Your task to perform on an android device: open app "Google Home" Image 0: 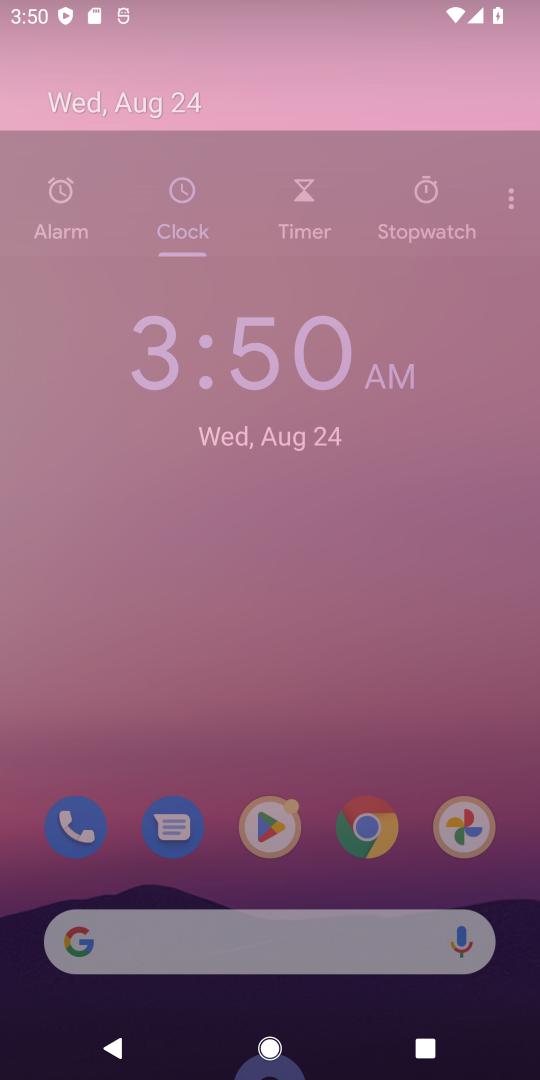
Step 0: press home button
Your task to perform on an android device: open app "Google Home" Image 1: 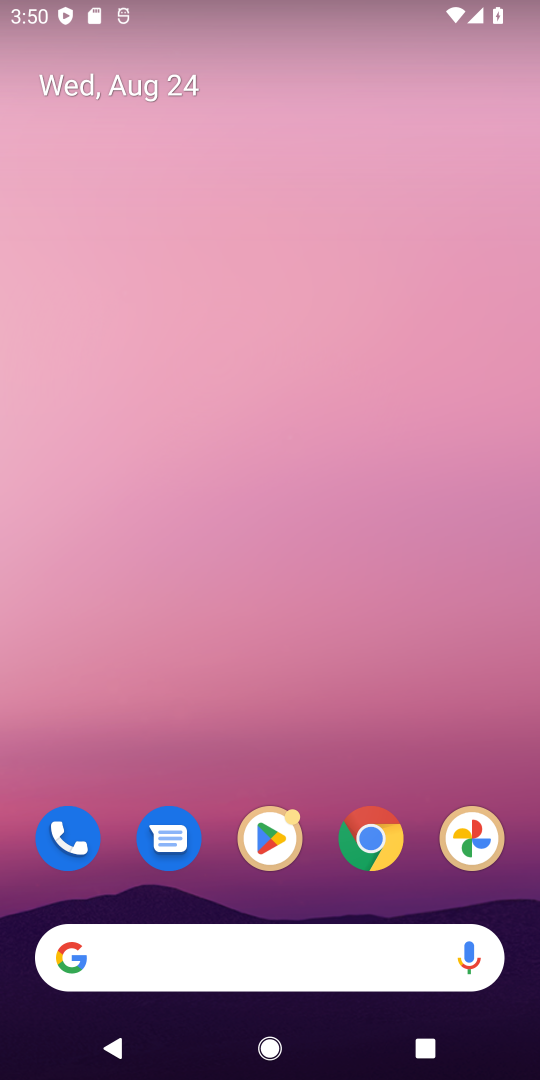
Step 1: click (267, 833)
Your task to perform on an android device: open app "Google Home" Image 2: 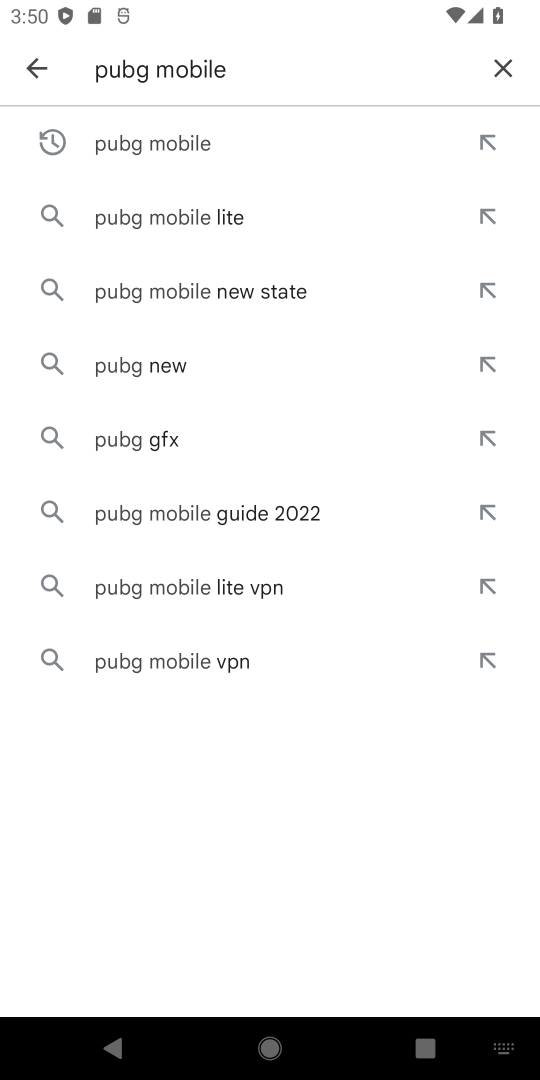
Step 2: click (500, 67)
Your task to perform on an android device: open app "Google Home" Image 3: 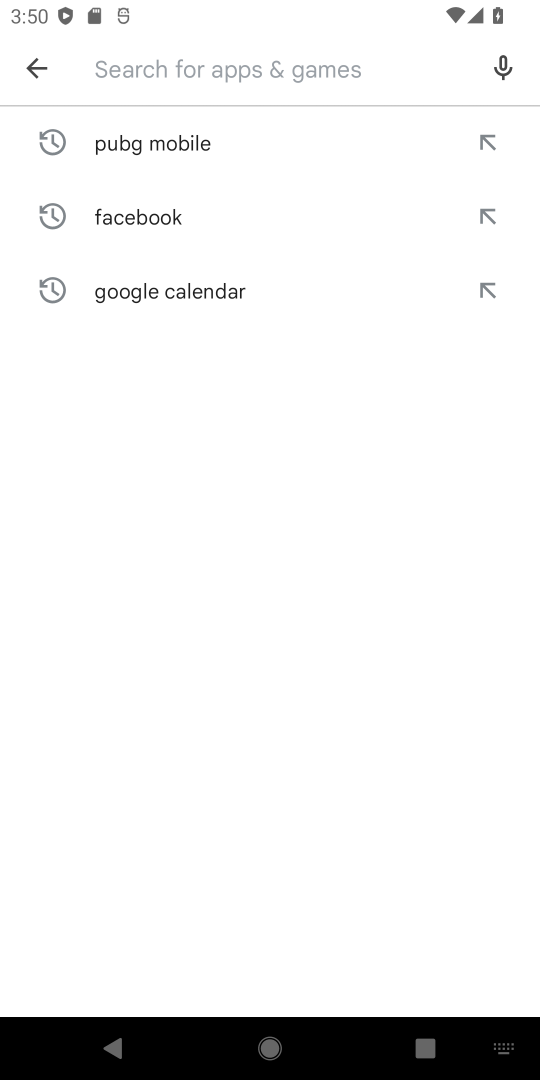
Step 3: type "Google Home"
Your task to perform on an android device: open app "Google Home" Image 4: 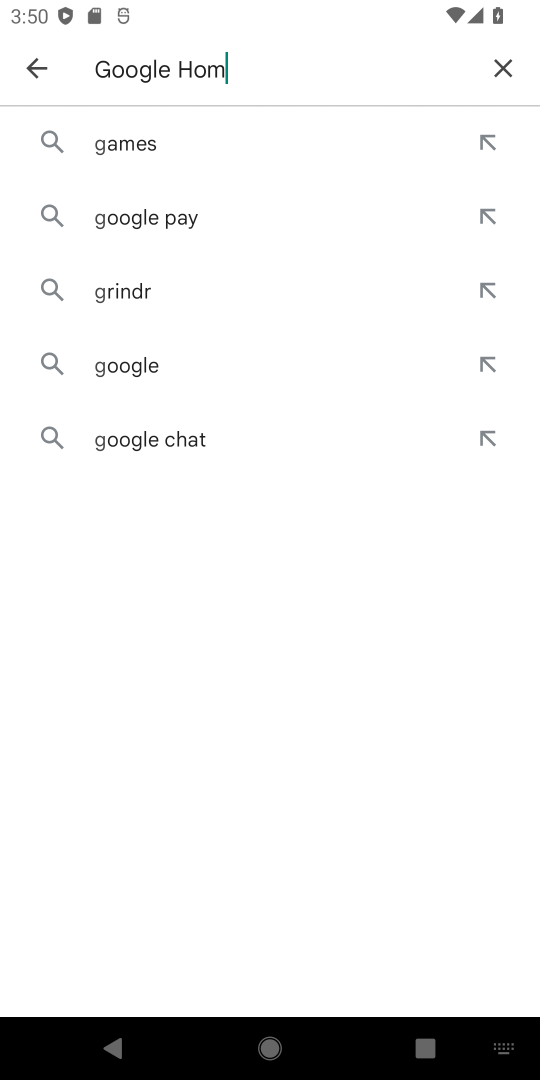
Step 4: type ""
Your task to perform on an android device: open app "Google Home" Image 5: 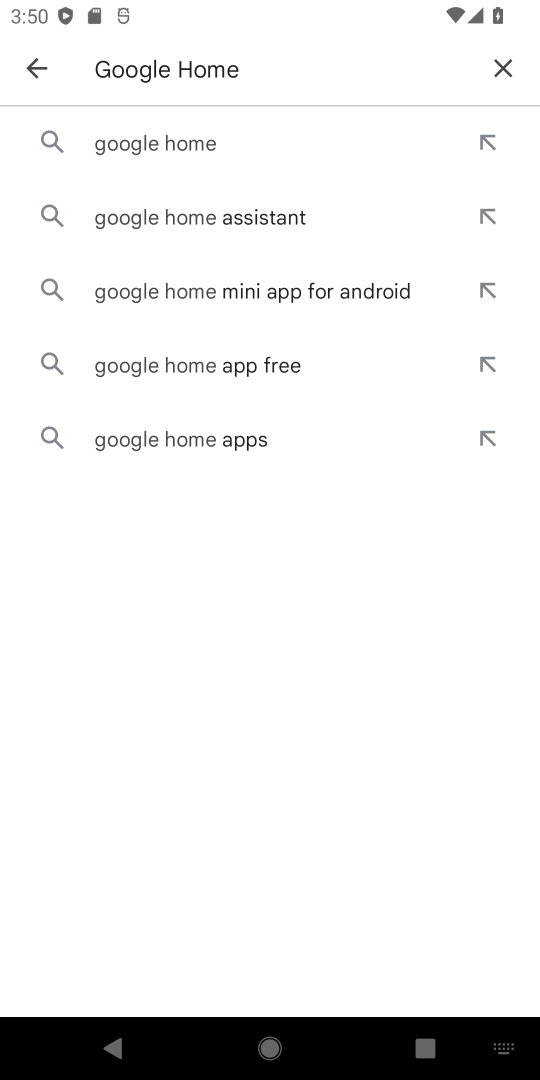
Step 5: click (224, 132)
Your task to perform on an android device: open app "Google Home" Image 6: 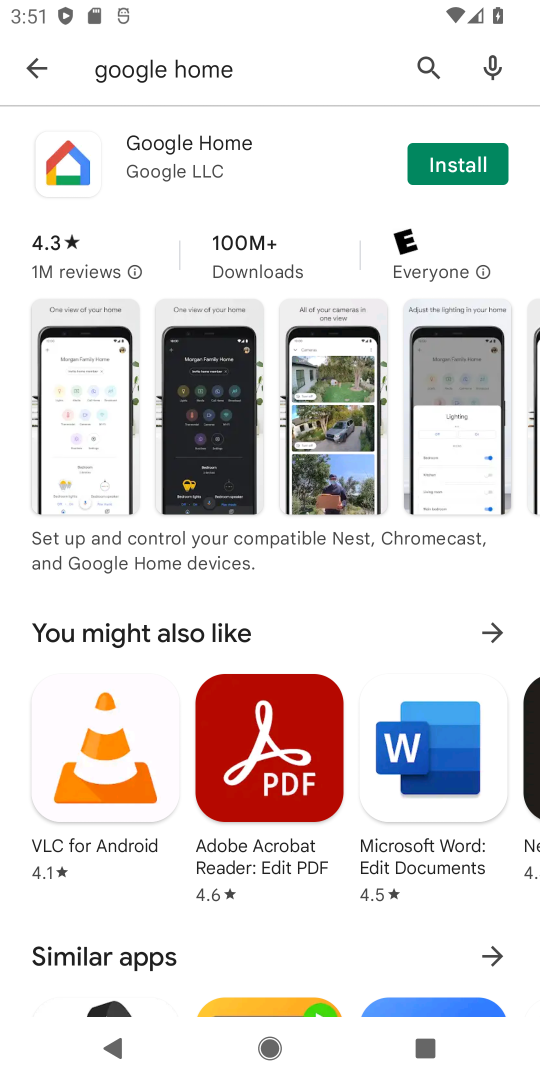
Step 6: task complete